Your task to perform on an android device: allow notifications from all sites in the chrome app Image 0: 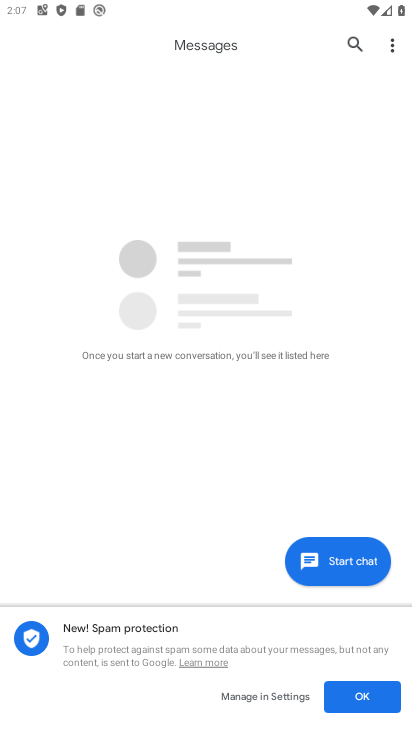
Step 0: press home button
Your task to perform on an android device: allow notifications from all sites in the chrome app Image 1: 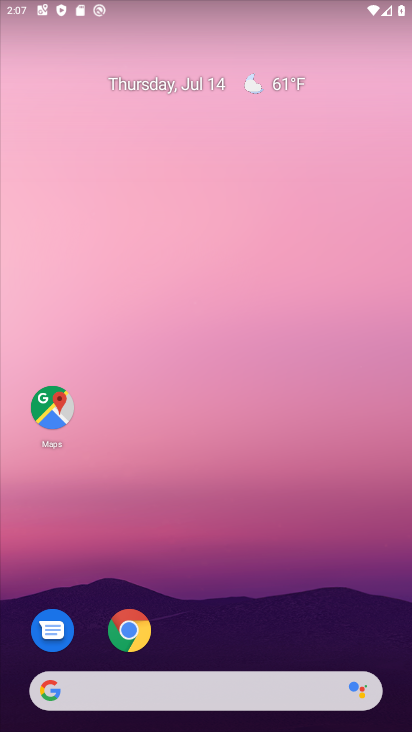
Step 1: click (130, 637)
Your task to perform on an android device: allow notifications from all sites in the chrome app Image 2: 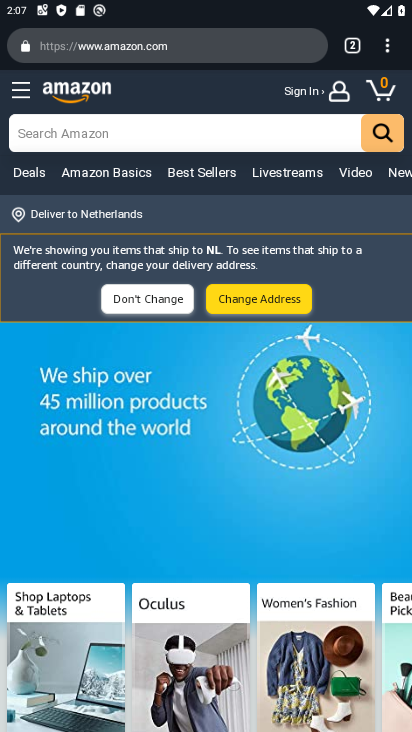
Step 2: drag from (392, 45) to (249, 599)
Your task to perform on an android device: allow notifications from all sites in the chrome app Image 3: 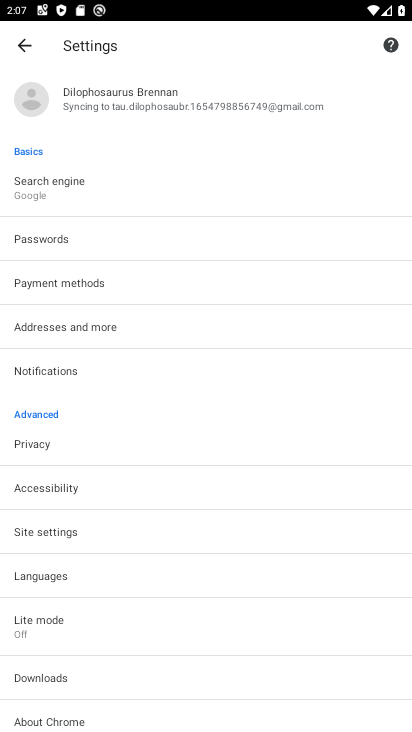
Step 3: click (58, 536)
Your task to perform on an android device: allow notifications from all sites in the chrome app Image 4: 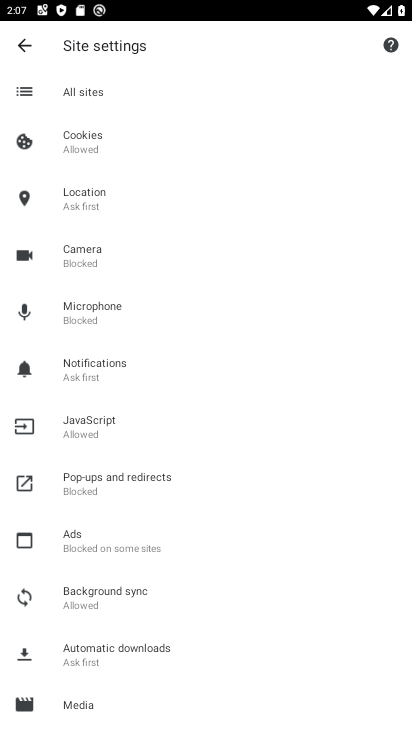
Step 4: click (95, 372)
Your task to perform on an android device: allow notifications from all sites in the chrome app Image 5: 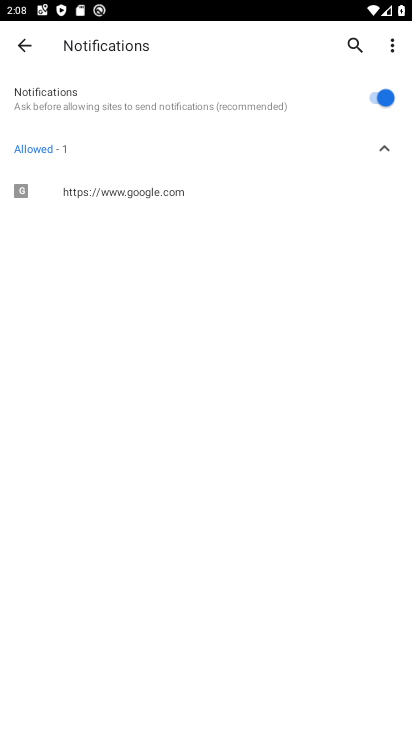
Step 5: task complete